Your task to perform on an android device: Open accessibility settings Image 0: 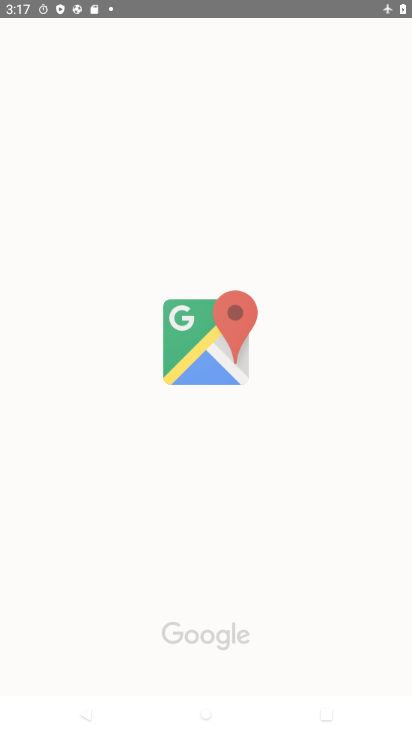
Step 0: drag from (255, 558) to (307, 57)
Your task to perform on an android device: Open accessibility settings Image 1: 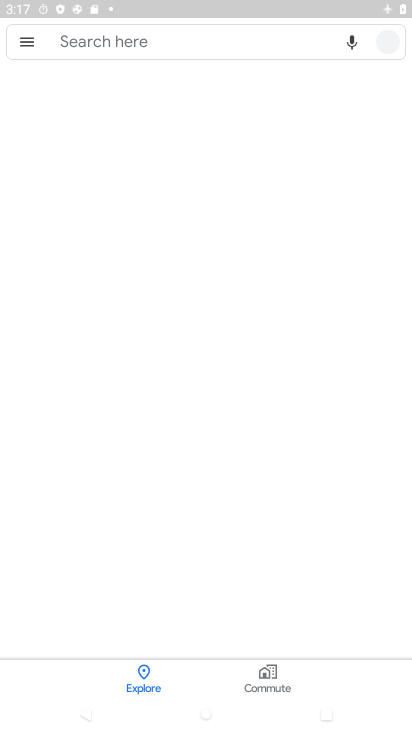
Step 1: press back button
Your task to perform on an android device: Open accessibility settings Image 2: 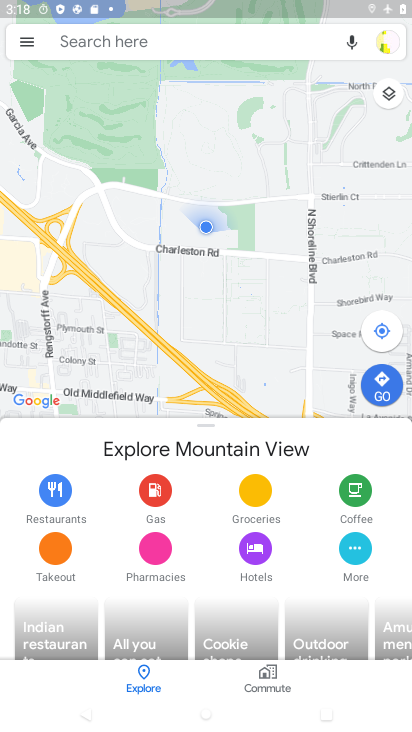
Step 2: press home button
Your task to perform on an android device: Open accessibility settings Image 3: 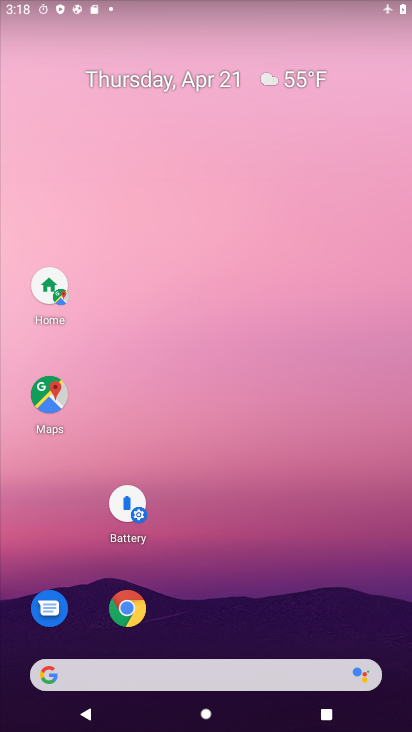
Step 3: drag from (237, 551) to (331, 71)
Your task to perform on an android device: Open accessibility settings Image 4: 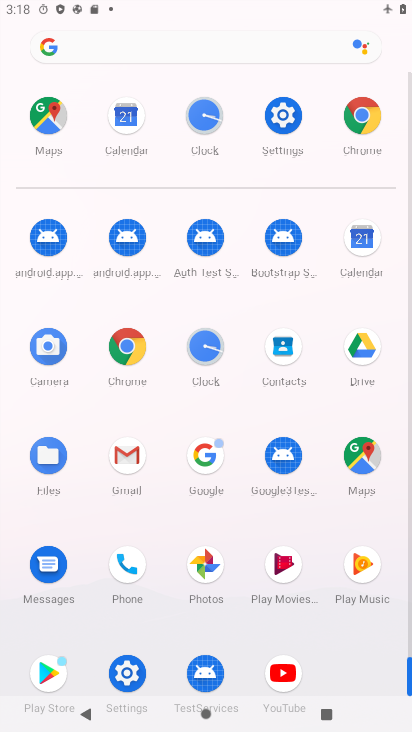
Step 4: click (284, 134)
Your task to perform on an android device: Open accessibility settings Image 5: 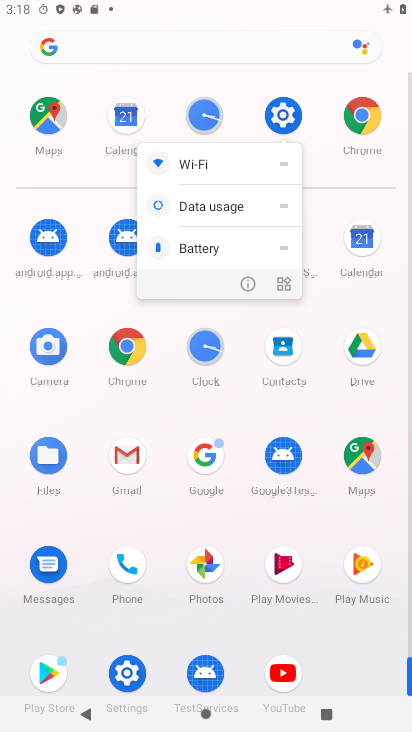
Step 5: click (285, 134)
Your task to perform on an android device: Open accessibility settings Image 6: 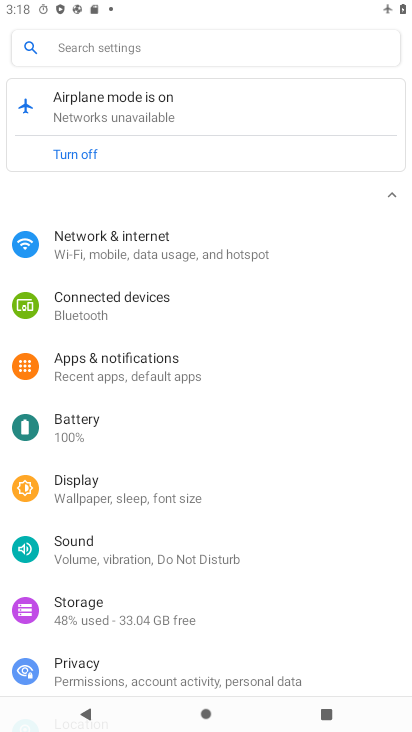
Step 6: drag from (212, 579) to (296, 193)
Your task to perform on an android device: Open accessibility settings Image 7: 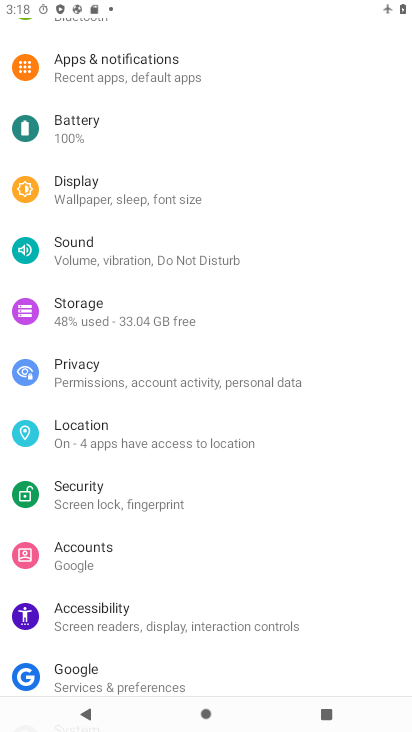
Step 7: click (98, 606)
Your task to perform on an android device: Open accessibility settings Image 8: 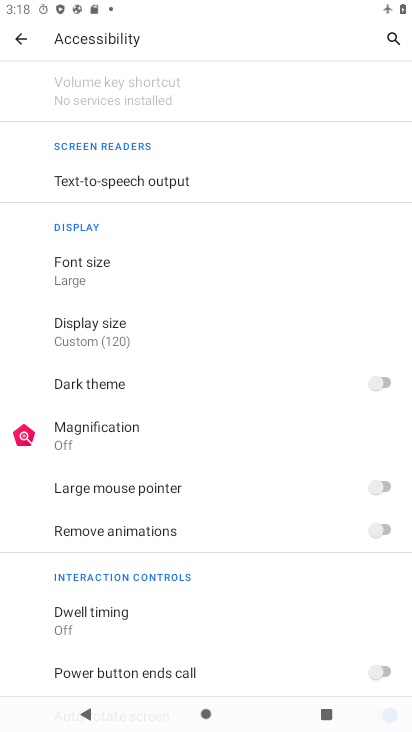
Step 8: task complete